Your task to perform on an android device: Open settings on Google Maps Image 0: 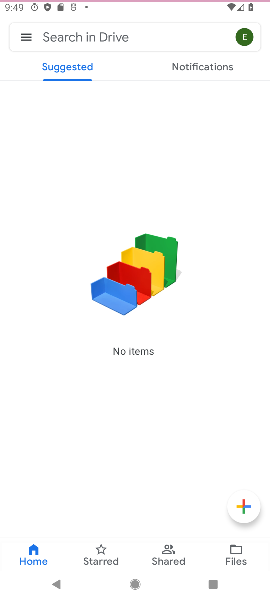
Step 0: press home button
Your task to perform on an android device: Open settings on Google Maps Image 1: 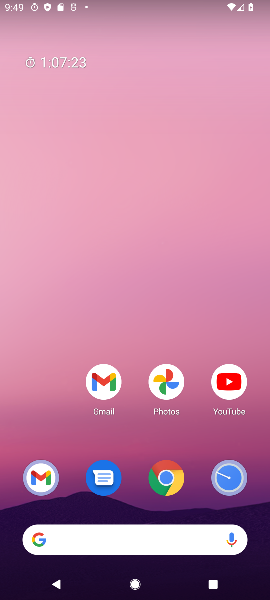
Step 1: drag from (146, 446) to (174, 111)
Your task to perform on an android device: Open settings on Google Maps Image 2: 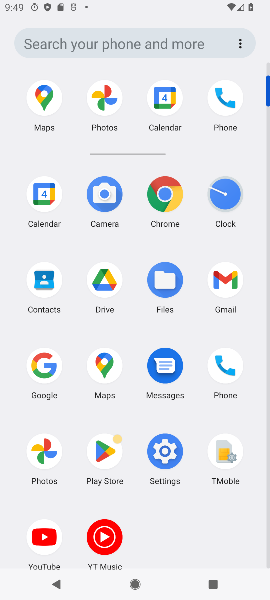
Step 2: click (96, 354)
Your task to perform on an android device: Open settings on Google Maps Image 3: 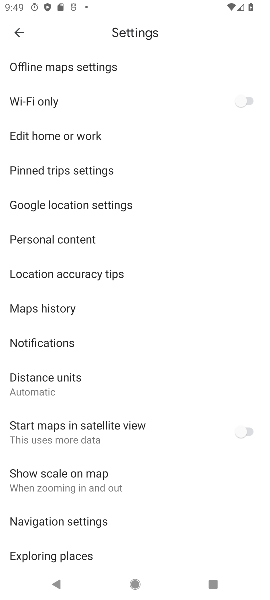
Step 3: task complete